Your task to perform on an android device: all mails in gmail Image 0: 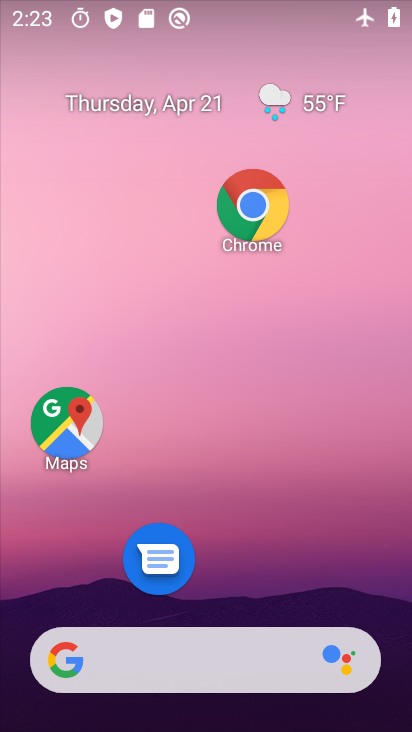
Step 0: drag from (214, 625) to (199, 12)
Your task to perform on an android device: all mails in gmail Image 1: 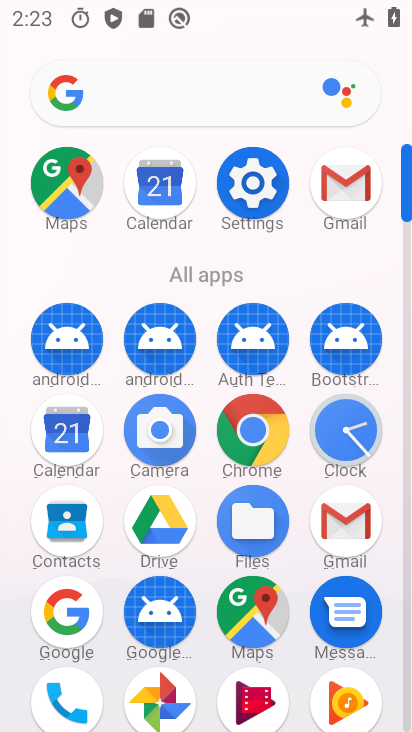
Step 1: click (329, 514)
Your task to perform on an android device: all mails in gmail Image 2: 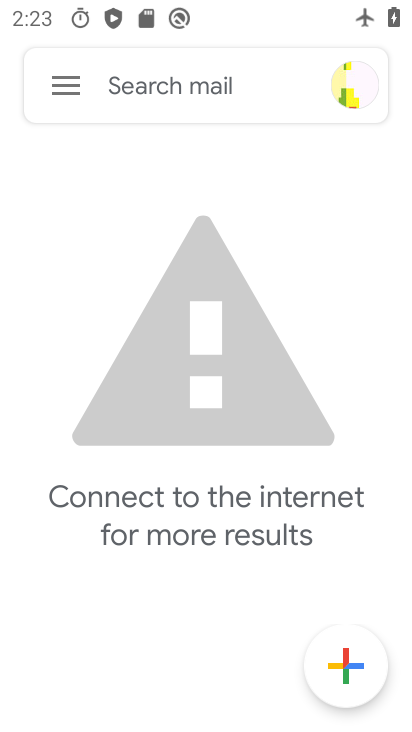
Step 2: click (50, 84)
Your task to perform on an android device: all mails in gmail Image 3: 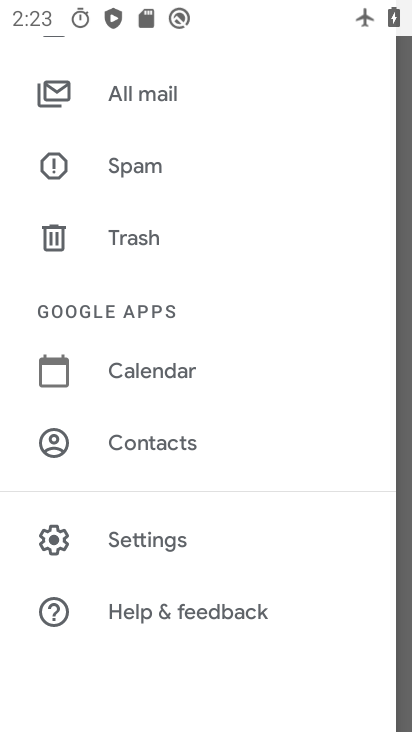
Step 3: click (120, 95)
Your task to perform on an android device: all mails in gmail Image 4: 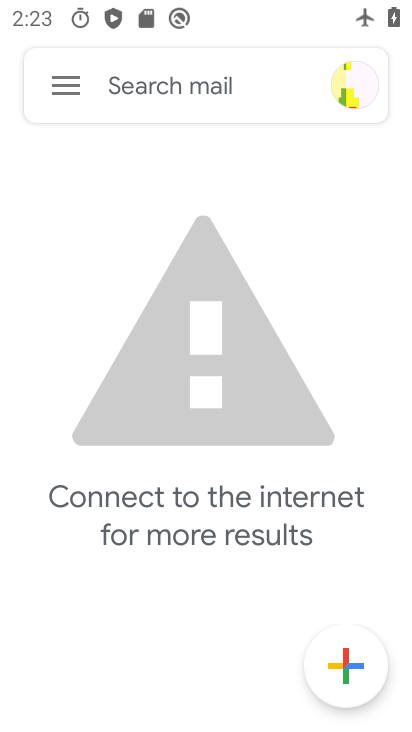
Step 4: task complete